Your task to perform on an android device: Open display settings Image 0: 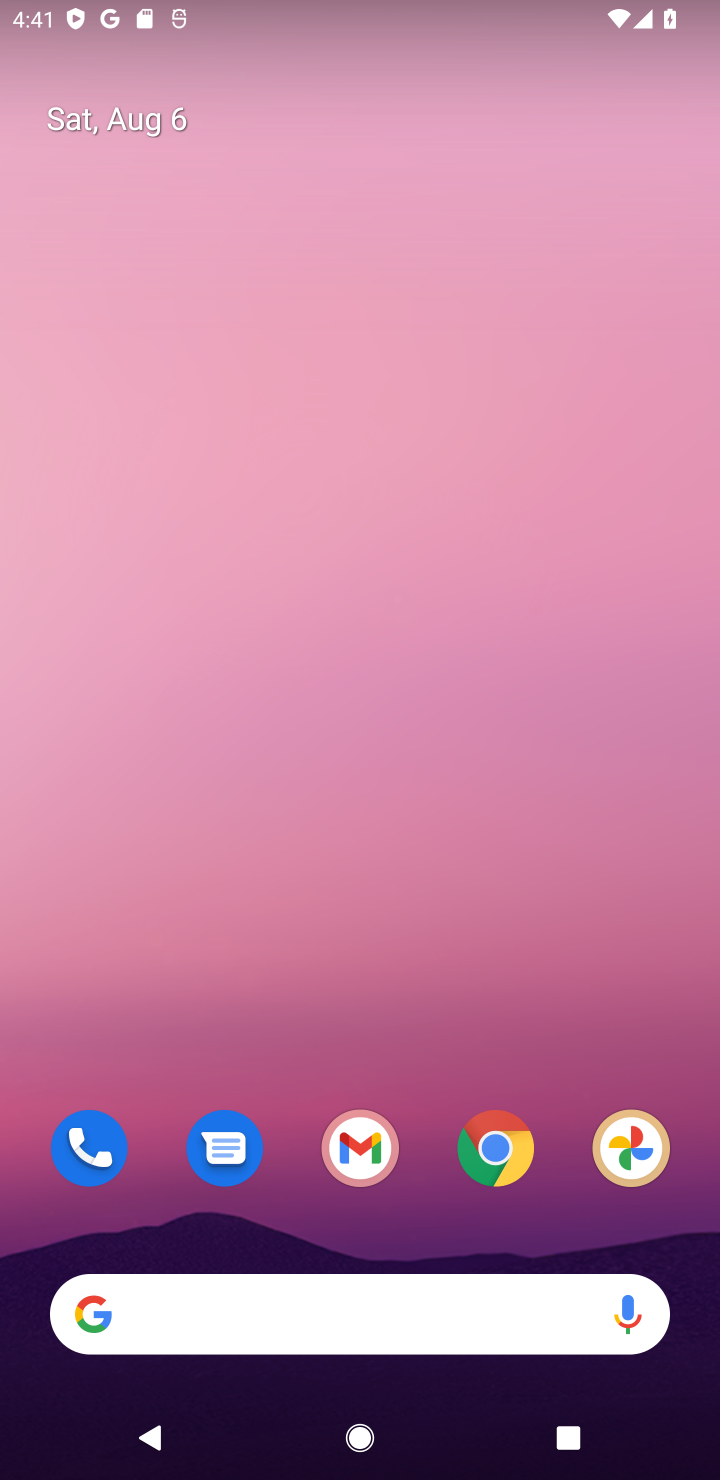
Step 0: drag from (337, 1221) to (203, 45)
Your task to perform on an android device: Open display settings Image 1: 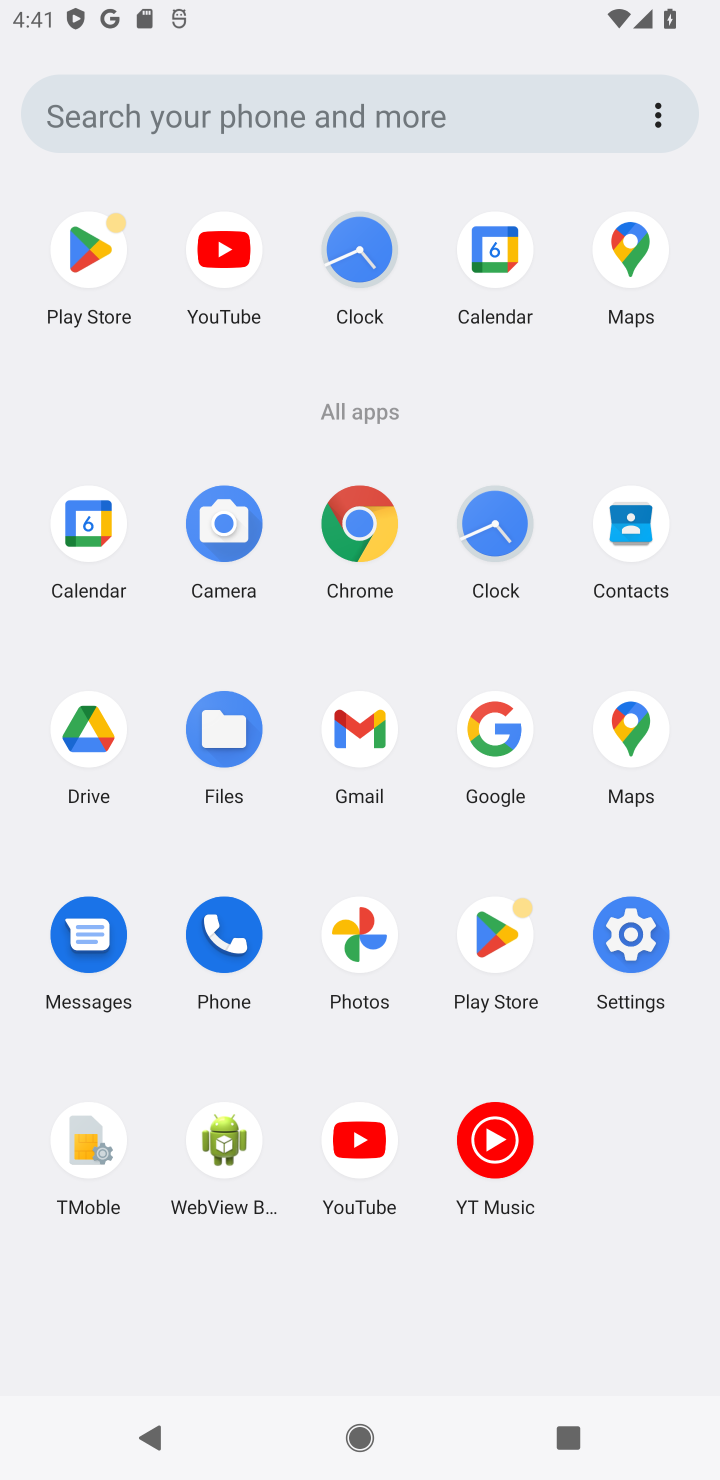
Step 1: click (622, 967)
Your task to perform on an android device: Open display settings Image 2: 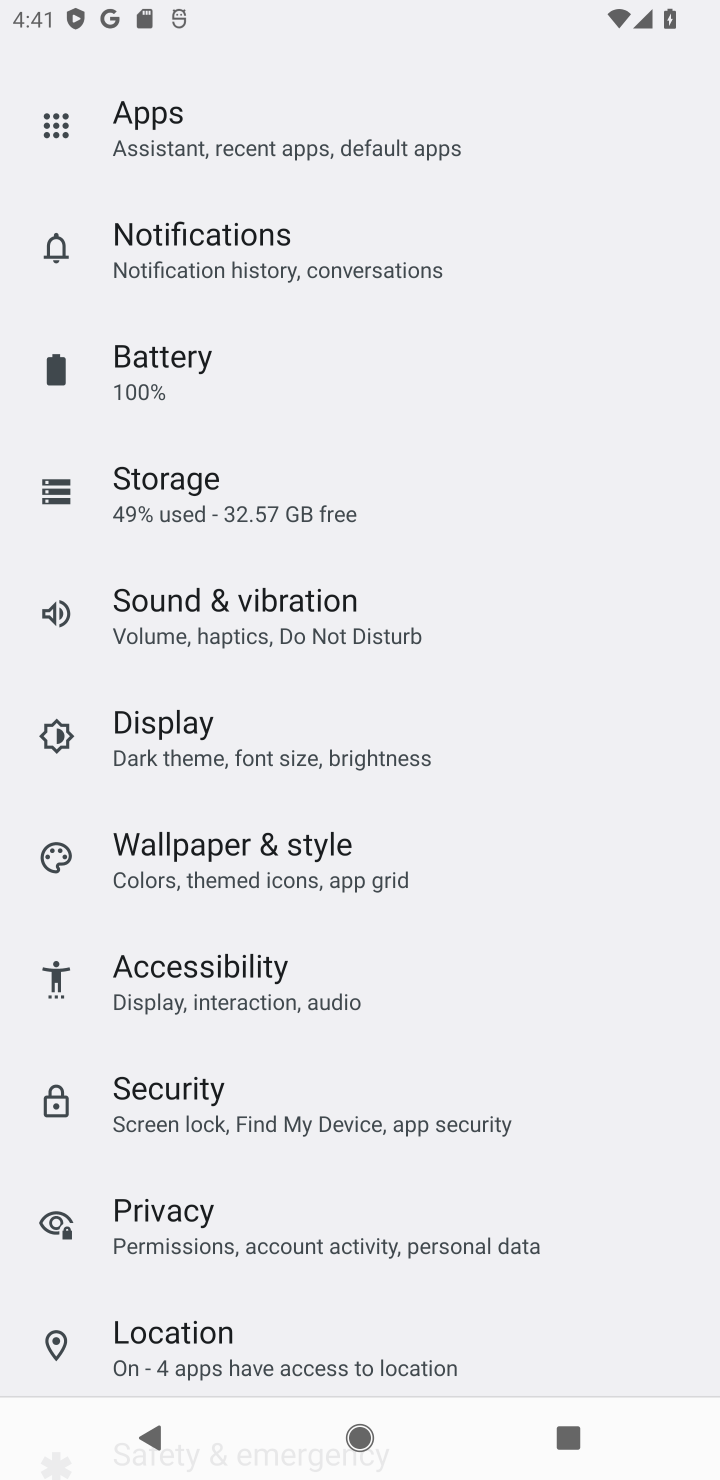
Step 2: click (161, 755)
Your task to perform on an android device: Open display settings Image 3: 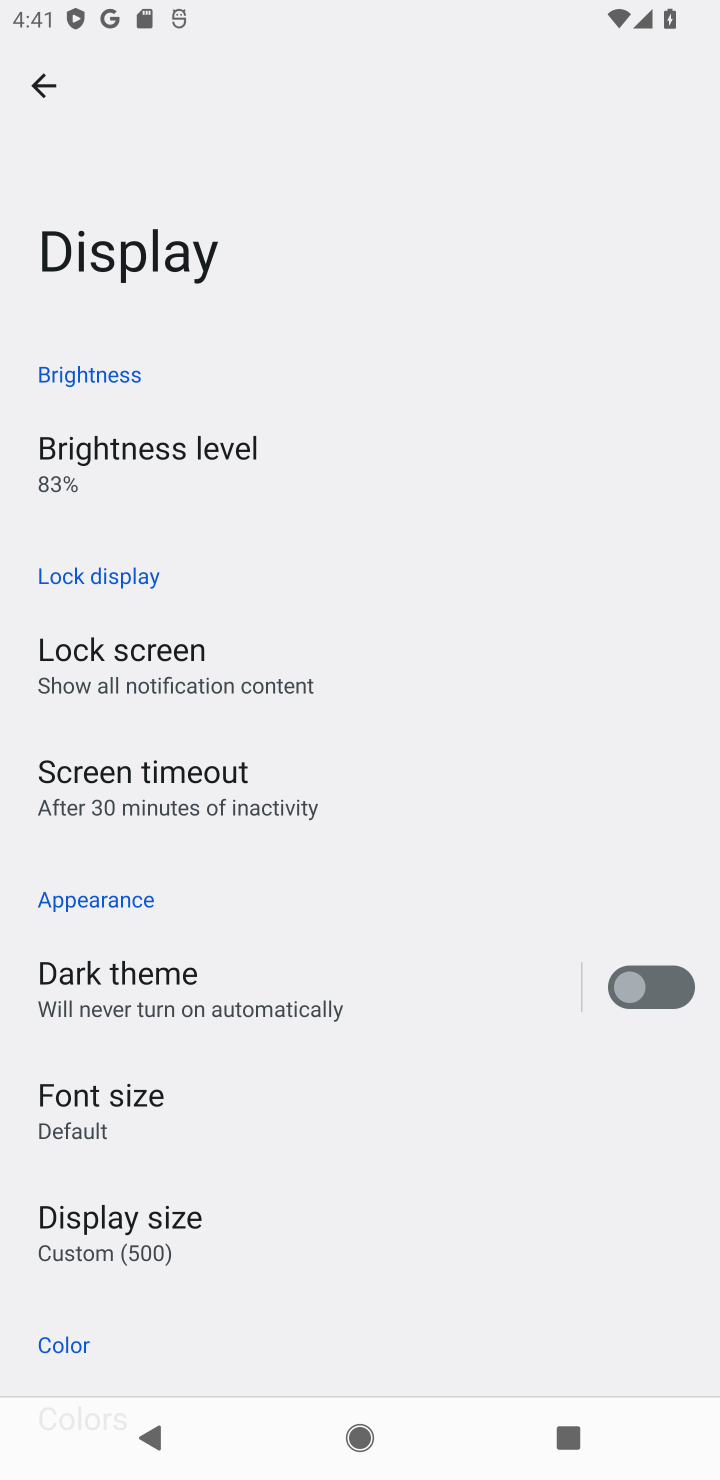
Step 3: task complete